Your task to perform on an android device: What's the latest video from IGN? Image 0: 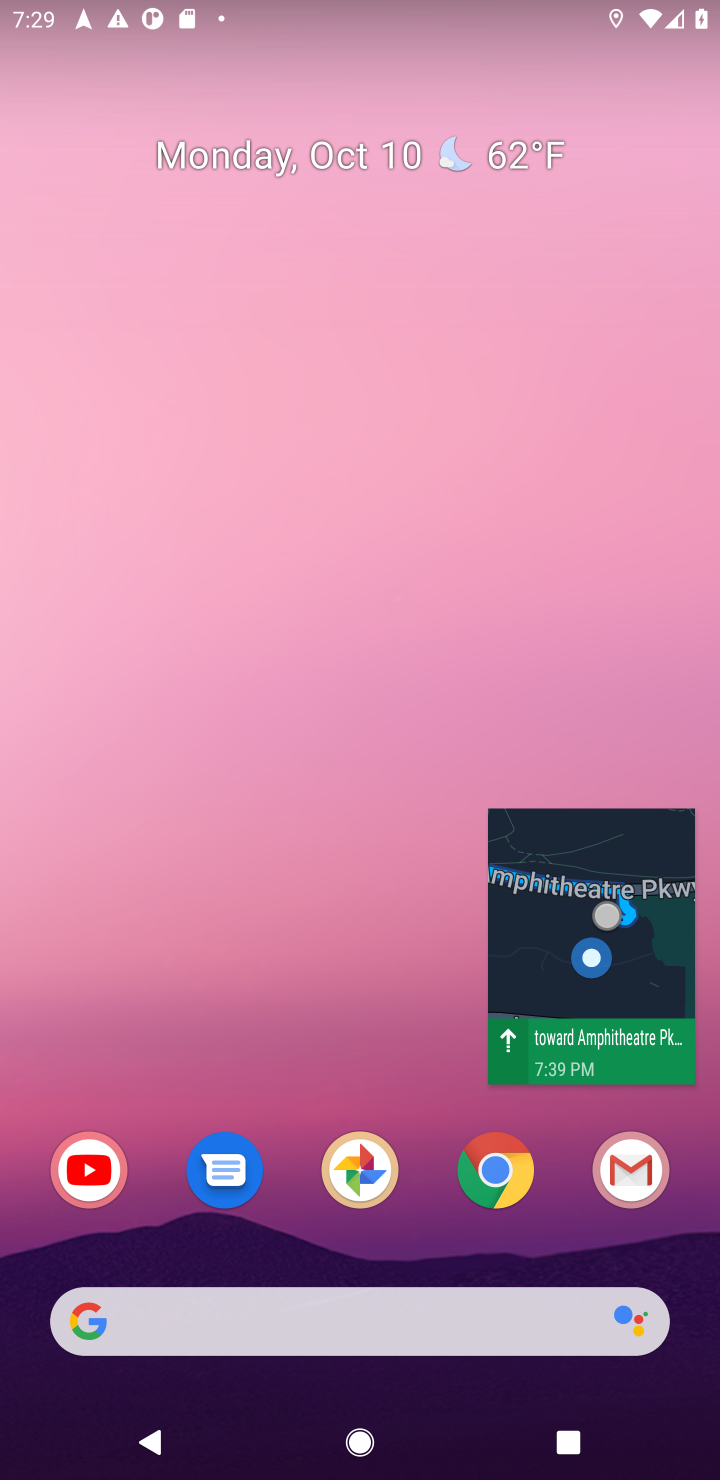
Step 0: drag from (610, 983) to (393, 1389)
Your task to perform on an android device: What's the latest video from IGN? Image 1: 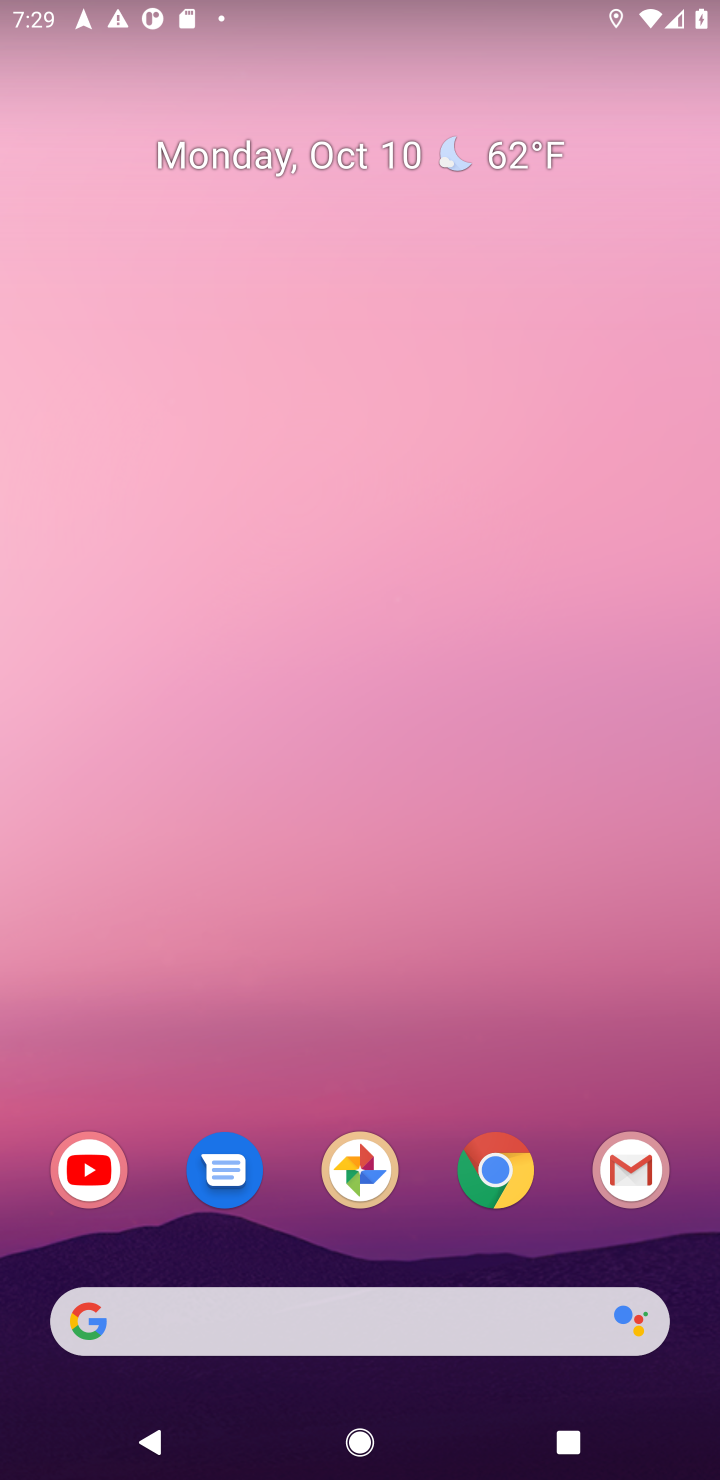
Step 1: click (95, 1167)
Your task to perform on an android device: What's the latest video from IGN? Image 2: 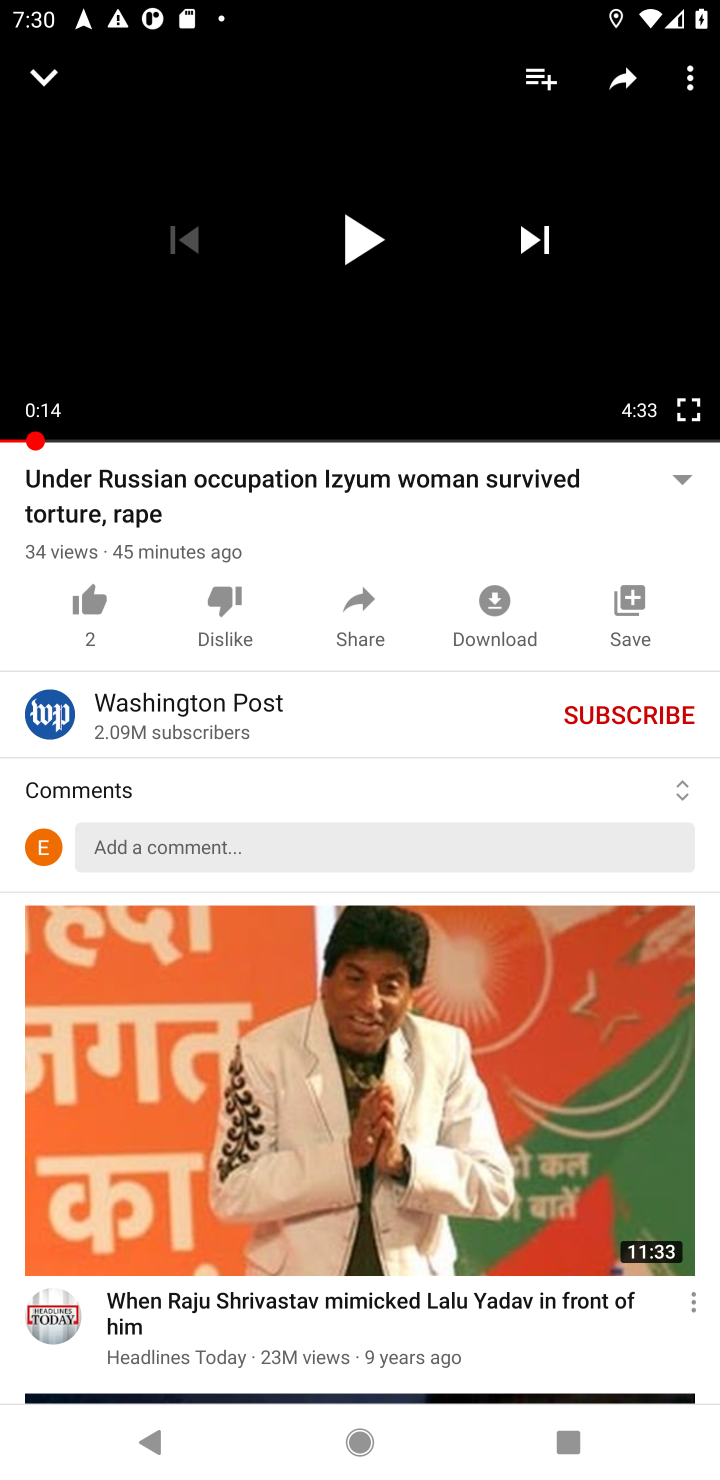
Step 2: drag from (410, 505) to (504, 805)
Your task to perform on an android device: What's the latest video from IGN? Image 3: 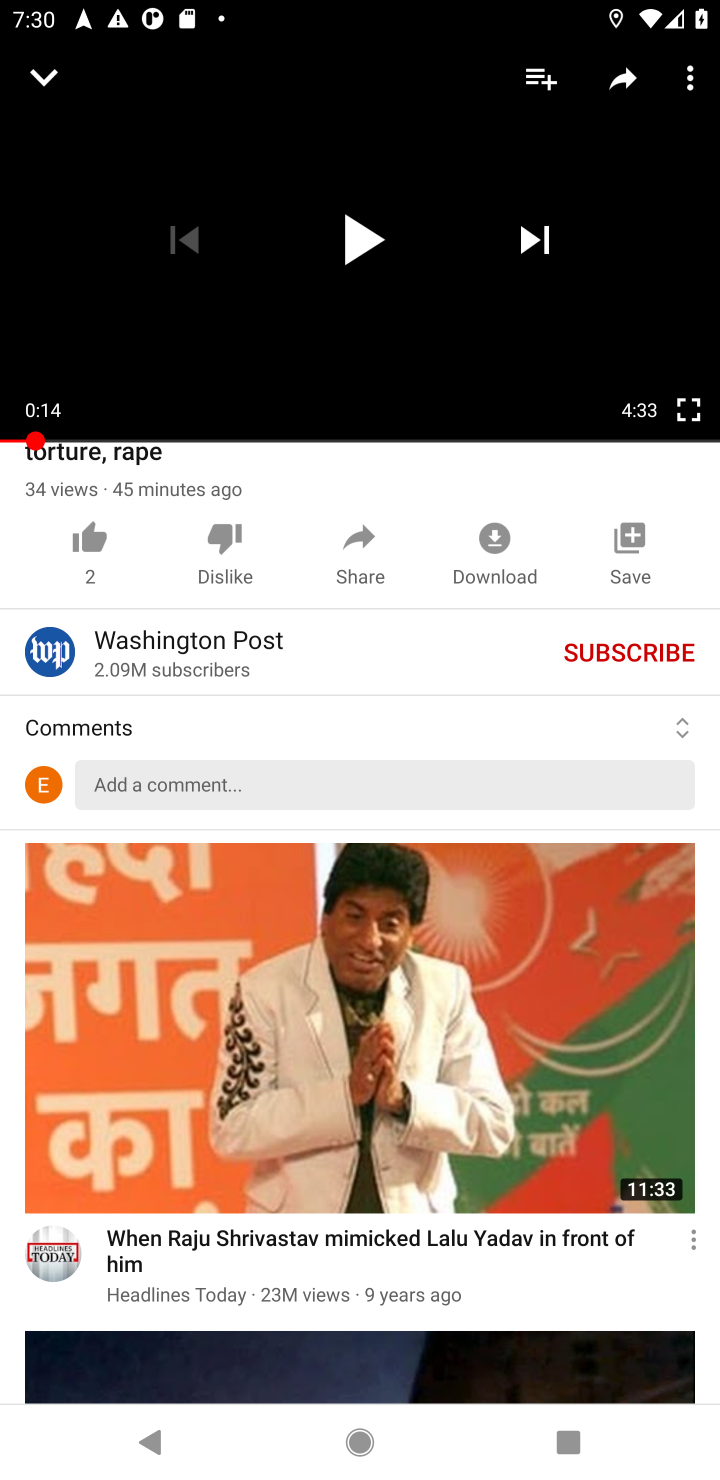
Step 3: drag from (438, 265) to (547, 1121)
Your task to perform on an android device: What's the latest video from IGN? Image 4: 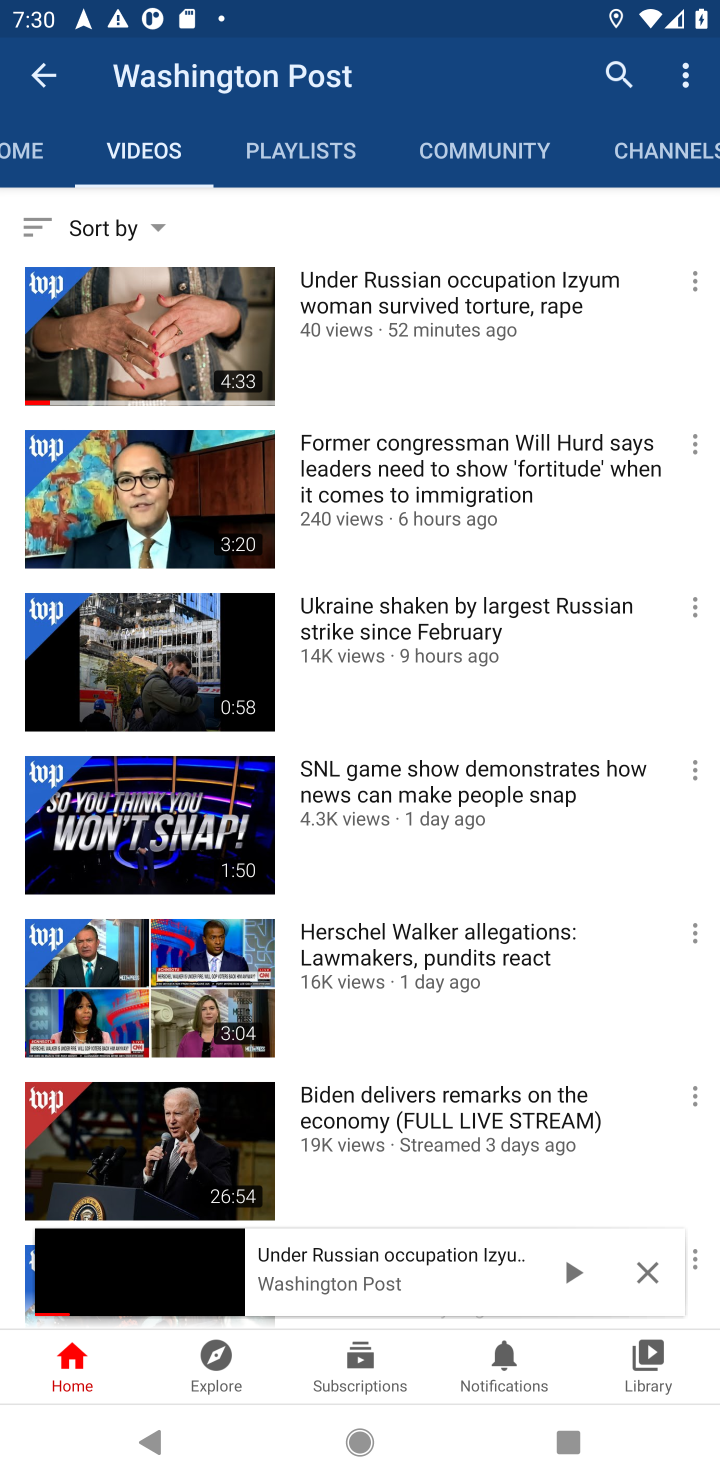
Step 4: click (606, 84)
Your task to perform on an android device: What's the latest video from IGN? Image 5: 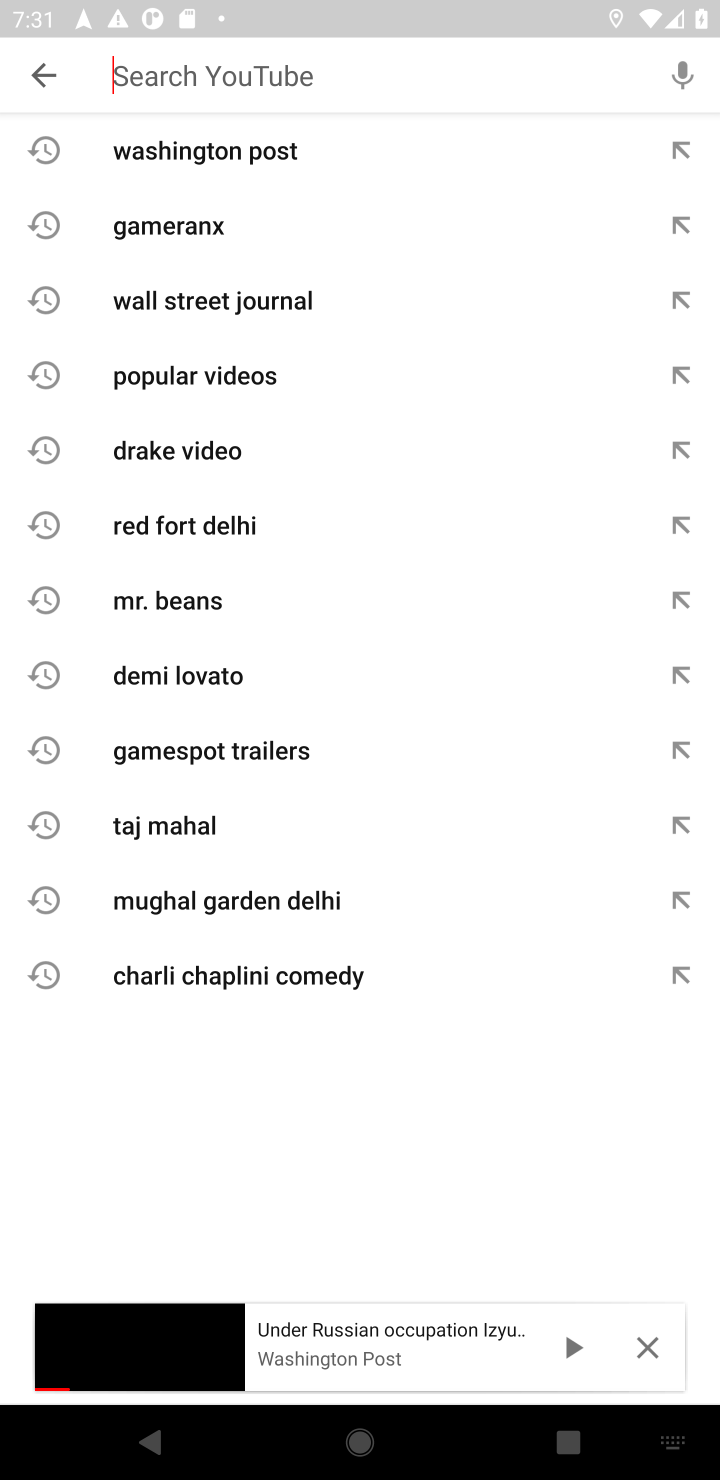
Step 5: type "ign"
Your task to perform on an android device: What's the latest video from IGN? Image 6: 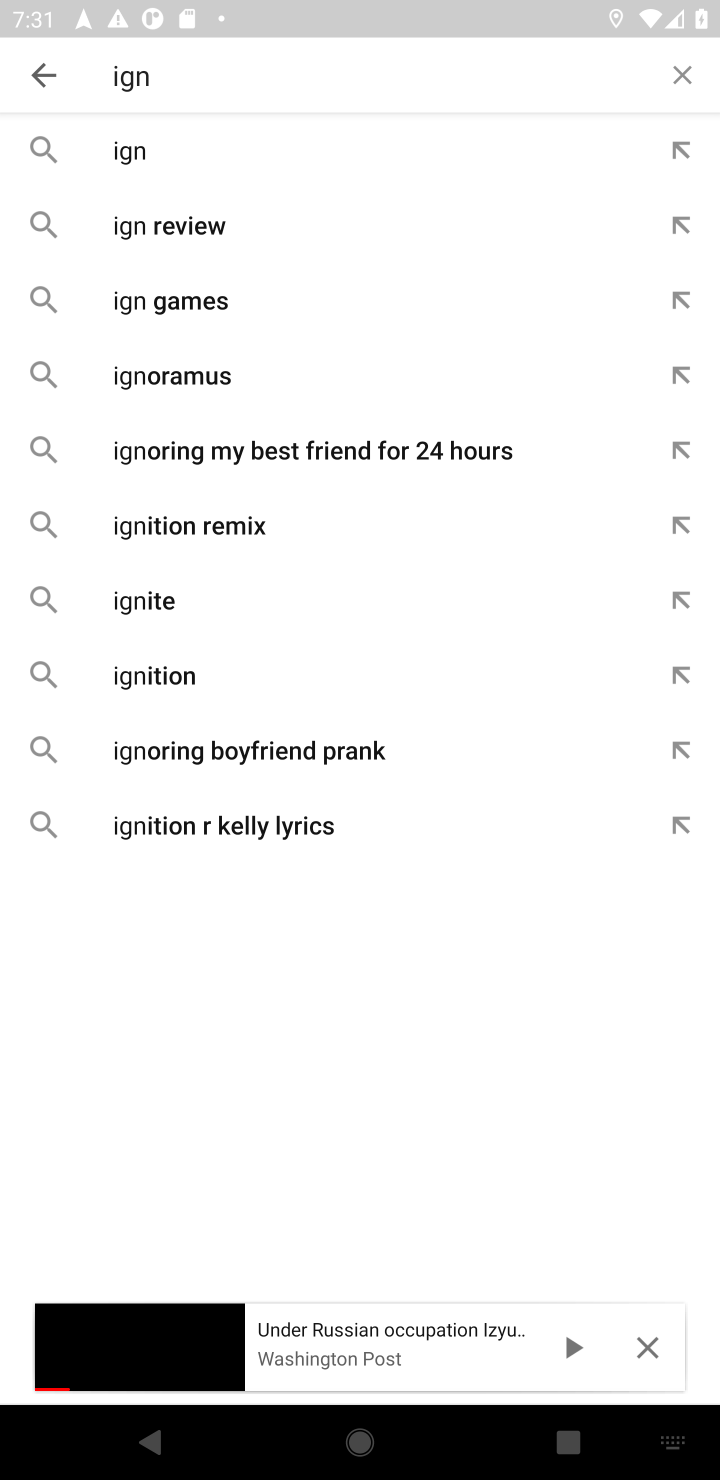
Step 6: click (235, 166)
Your task to perform on an android device: What's the latest video from IGN? Image 7: 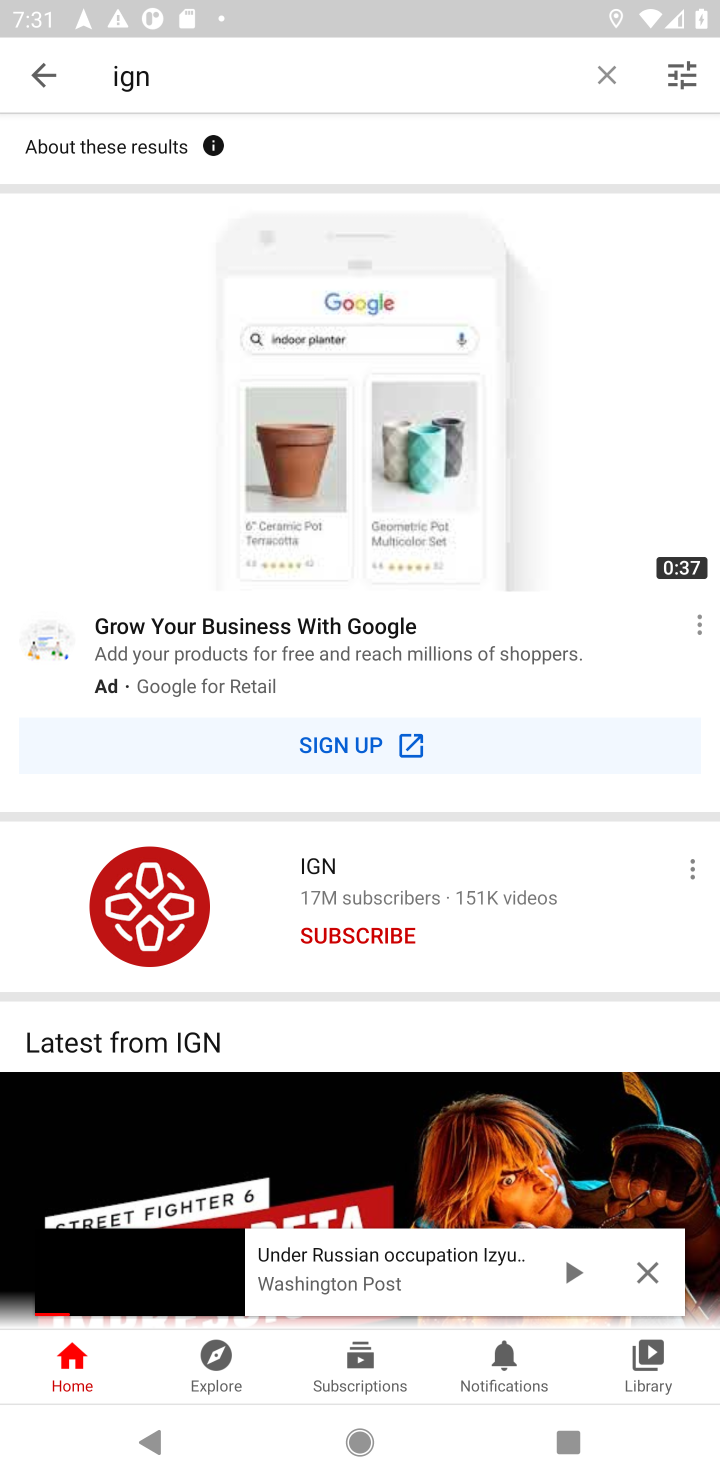
Step 7: click (427, 879)
Your task to perform on an android device: What's the latest video from IGN? Image 8: 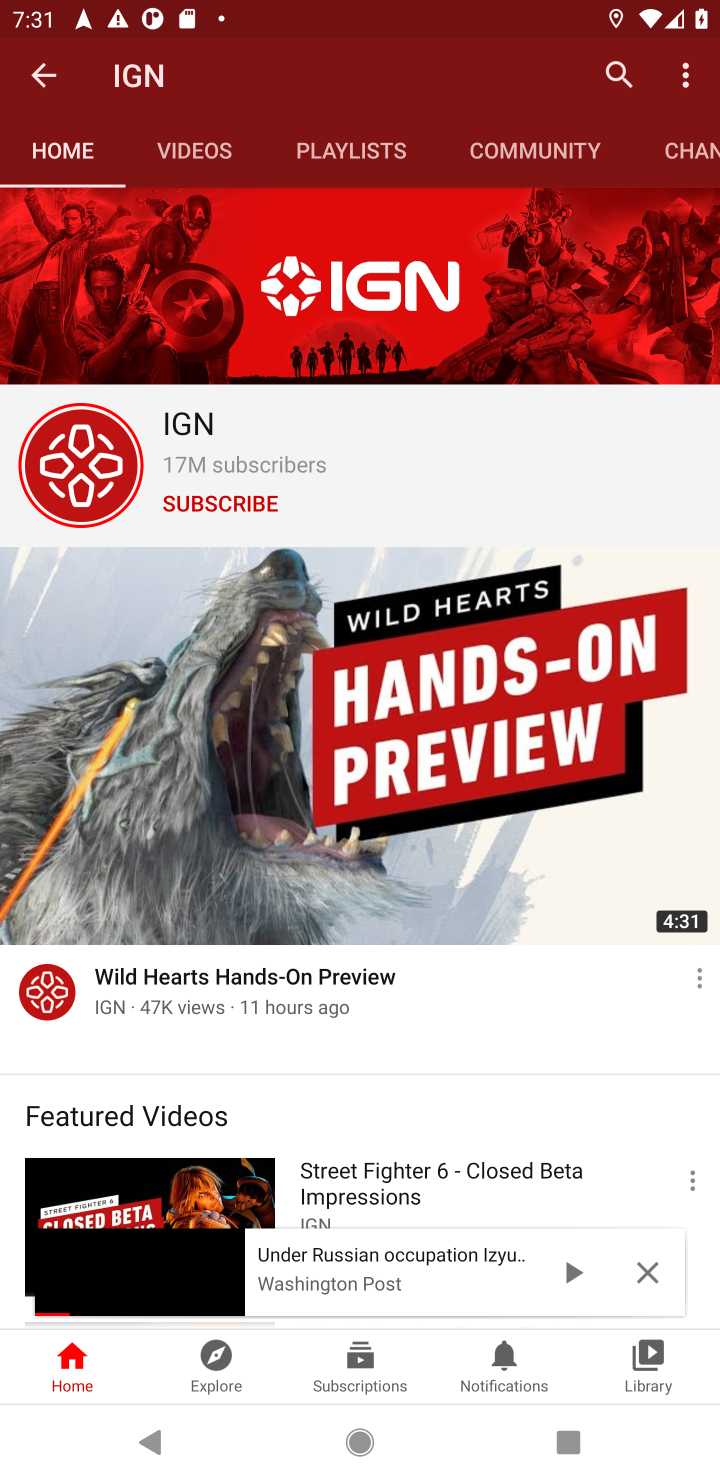
Step 8: click (210, 151)
Your task to perform on an android device: What's the latest video from IGN? Image 9: 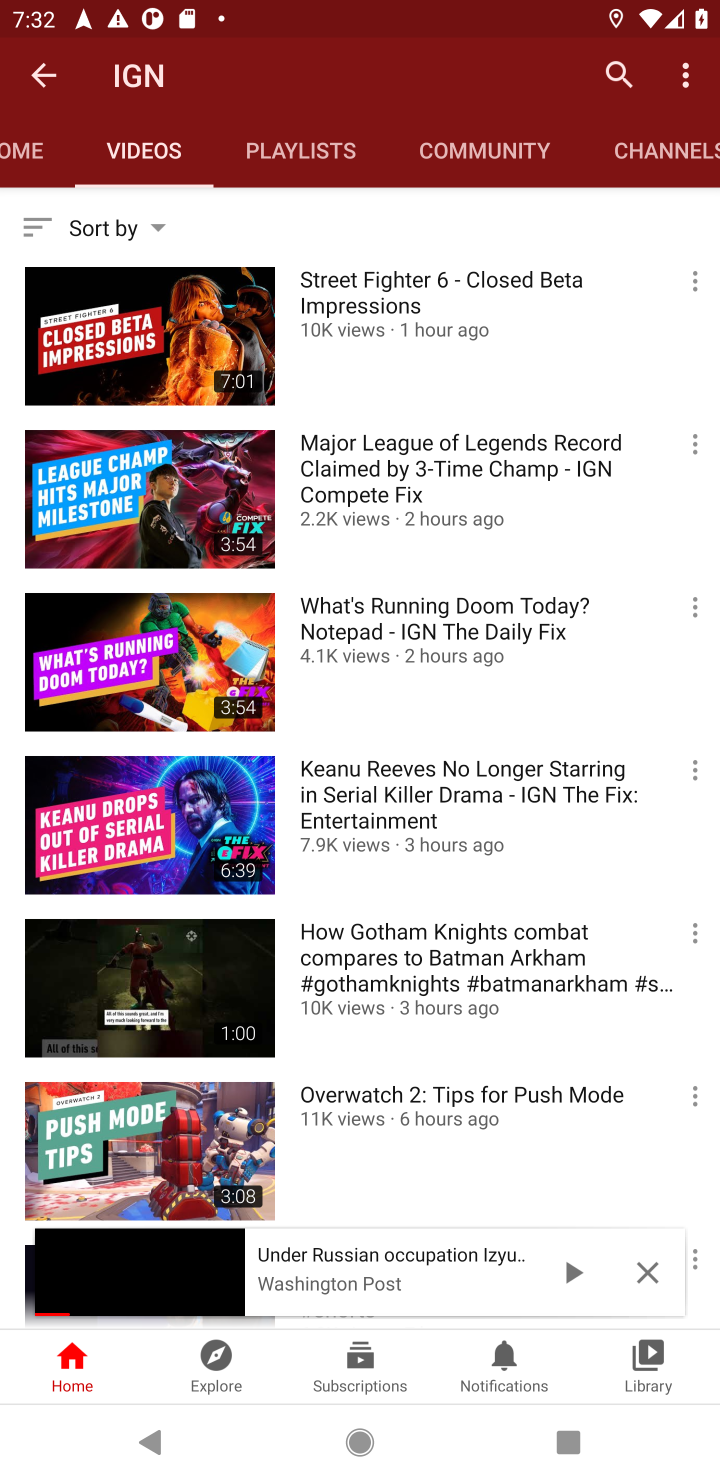
Step 9: click (519, 292)
Your task to perform on an android device: What's the latest video from IGN? Image 10: 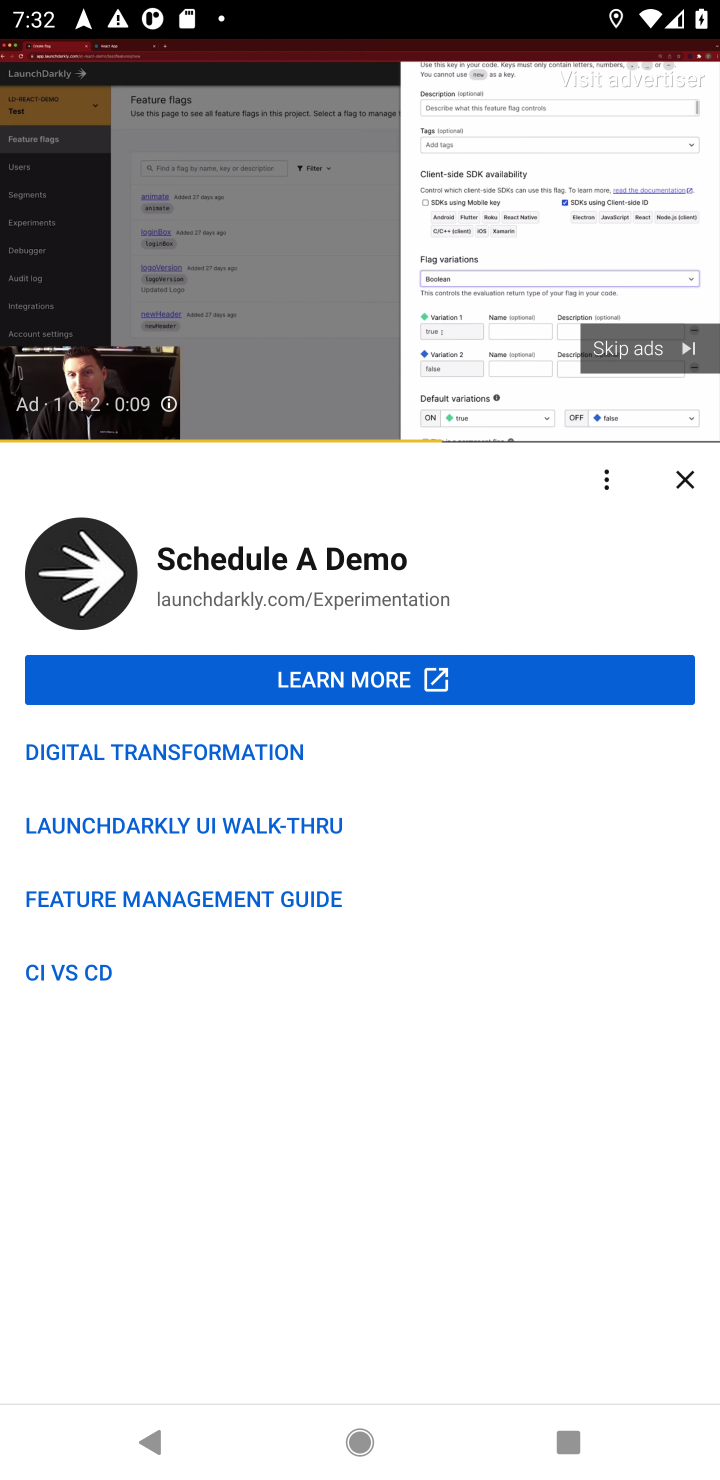
Step 10: click (660, 362)
Your task to perform on an android device: What's the latest video from IGN? Image 11: 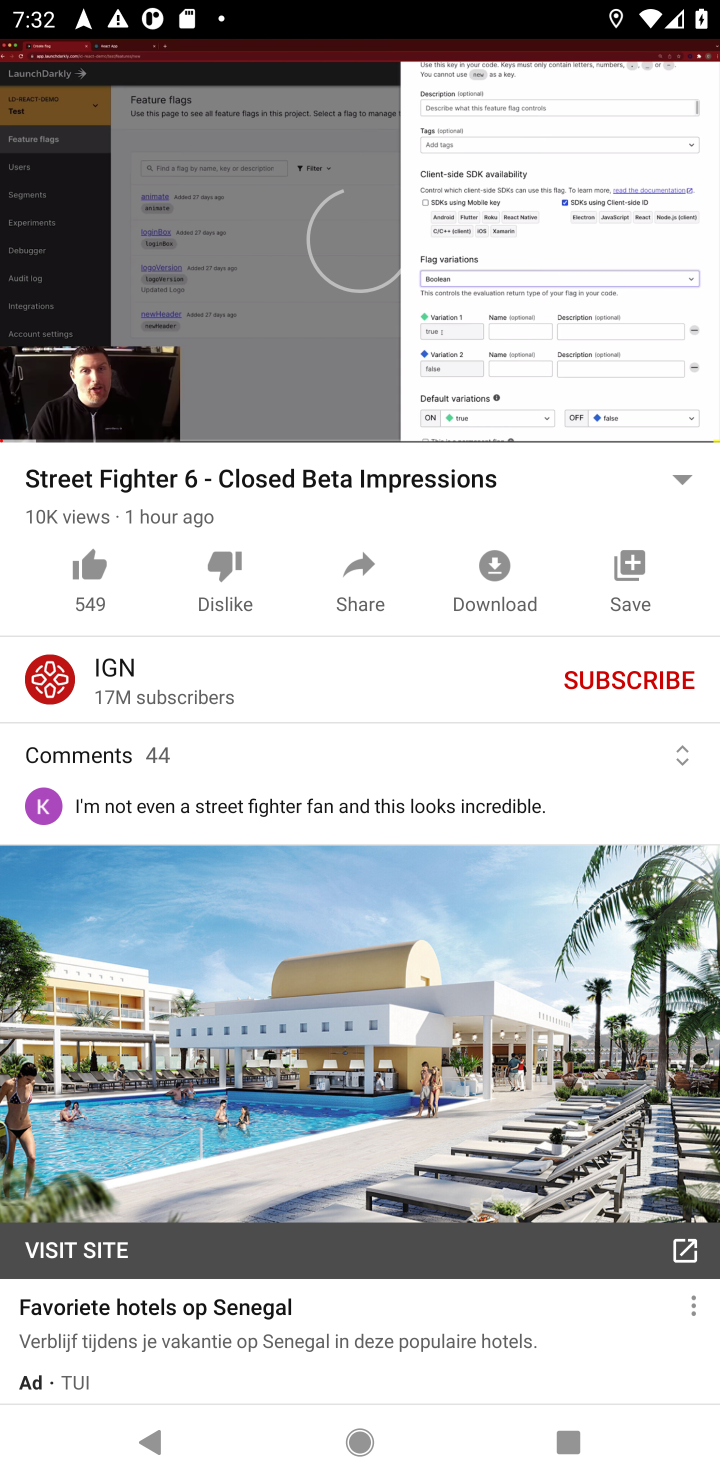
Step 11: task complete